Your task to perform on an android device: Do I have any events this weekend? Image 0: 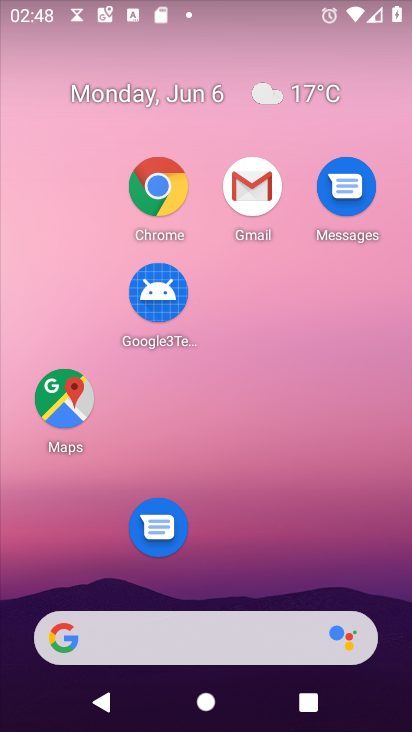
Step 0: drag from (302, 514) to (303, 123)
Your task to perform on an android device: Do I have any events this weekend? Image 1: 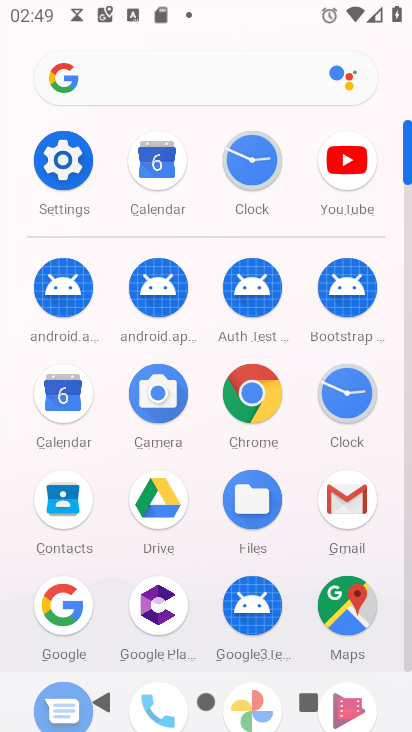
Step 1: click (55, 395)
Your task to perform on an android device: Do I have any events this weekend? Image 2: 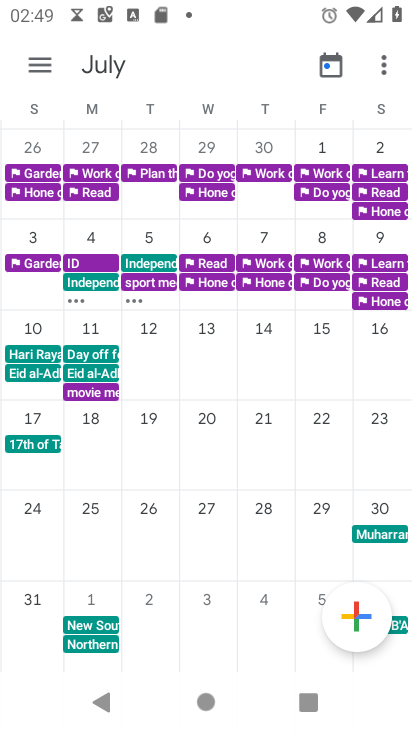
Step 2: task complete